Your task to perform on an android device: Open the stopwatch Image 0: 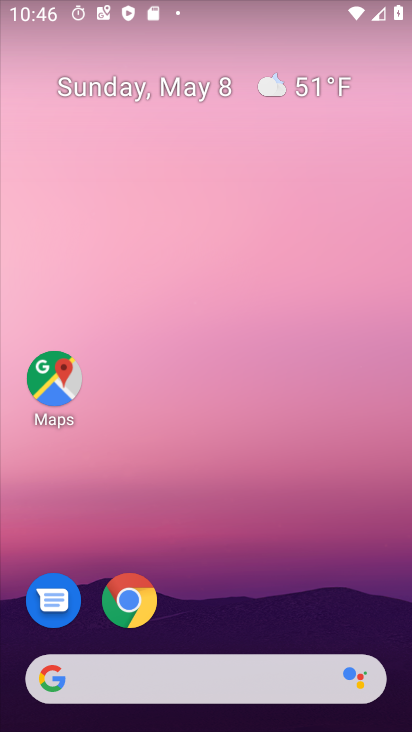
Step 0: drag from (280, 572) to (7, 10)
Your task to perform on an android device: Open the stopwatch Image 1: 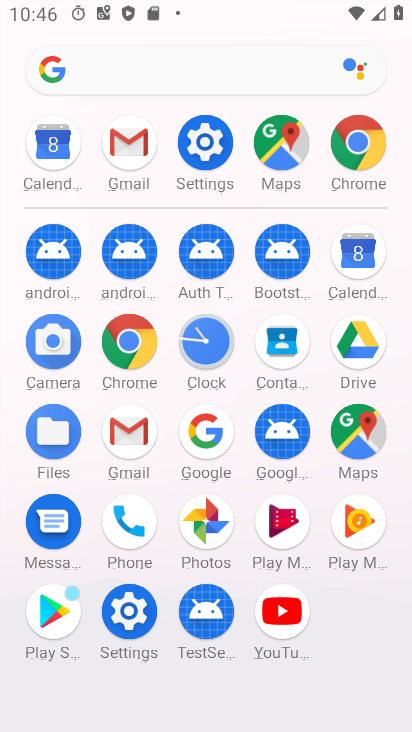
Step 1: drag from (7, 533) to (22, 209)
Your task to perform on an android device: Open the stopwatch Image 2: 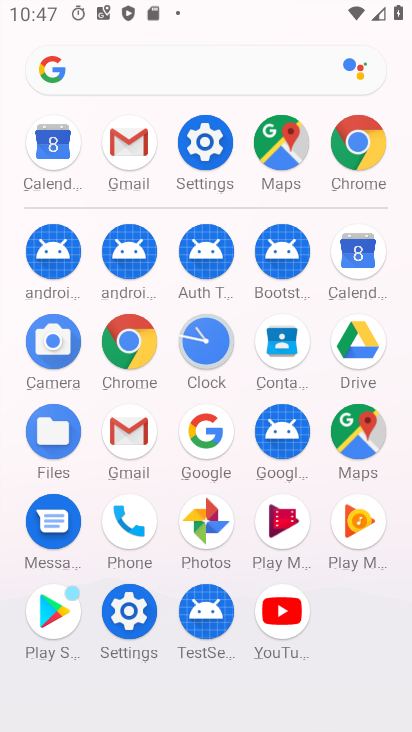
Step 2: click (207, 340)
Your task to perform on an android device: Open the stopwatch Image 3: 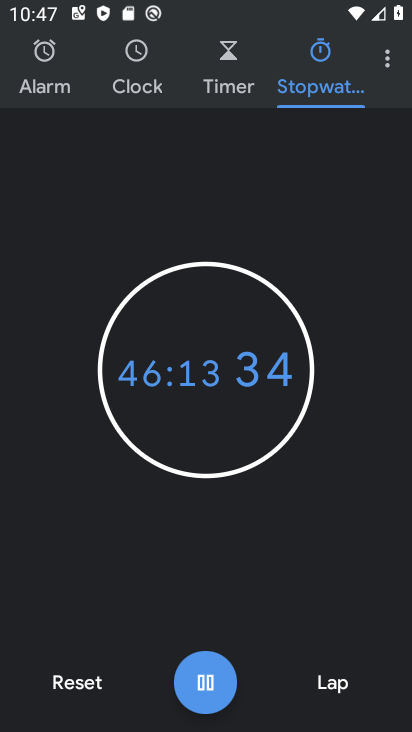
Step 3: task complete